Your task to perform on an android device: Search for bose soundlink mini on ebay.com, select the first entry, add it to the cart, then select checkout. Image 0: 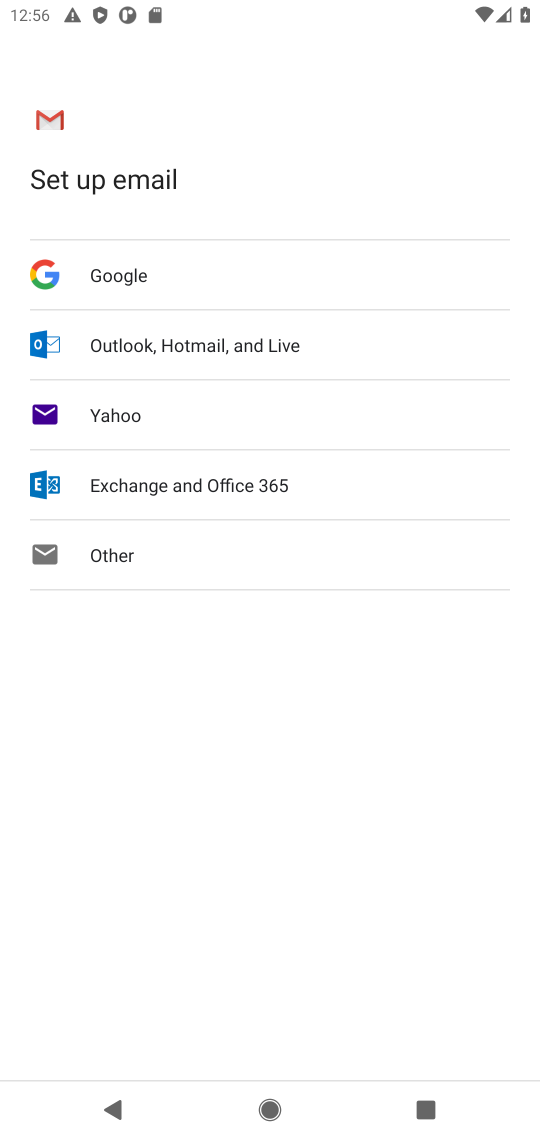
Step 0: press home button
Your task to perform on an android device: Search for bose soundlink mini on ebay.com, select the first entry, add it to the cart, then select checkout. Image 1: 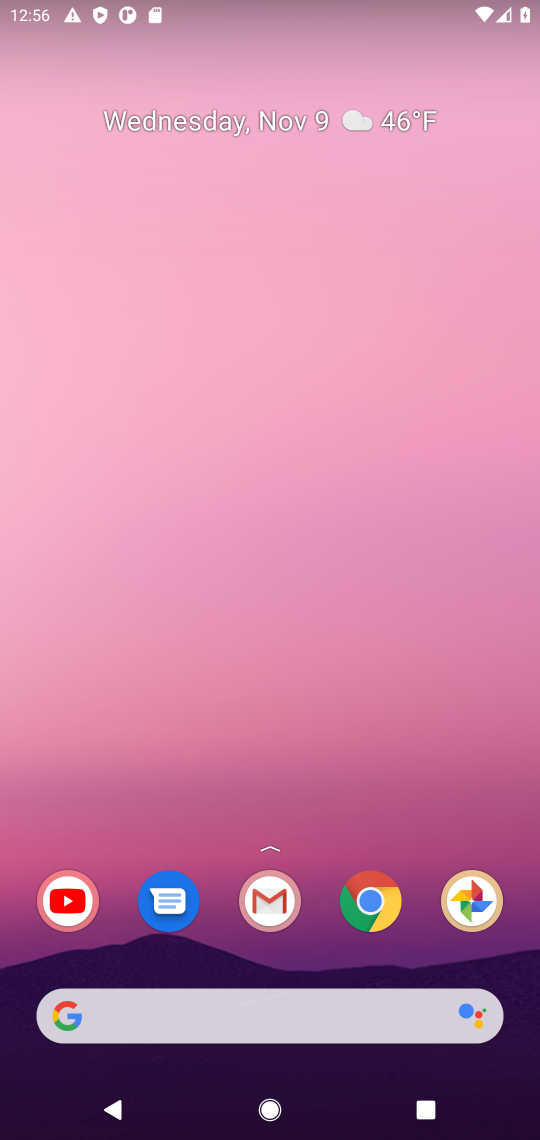
Step 1: click (345, 898)
Your task to perform on an android device: Search for bose soundlink mini on ebay.com, select the first entry, add it to the cart, then select checkout. Image 2: 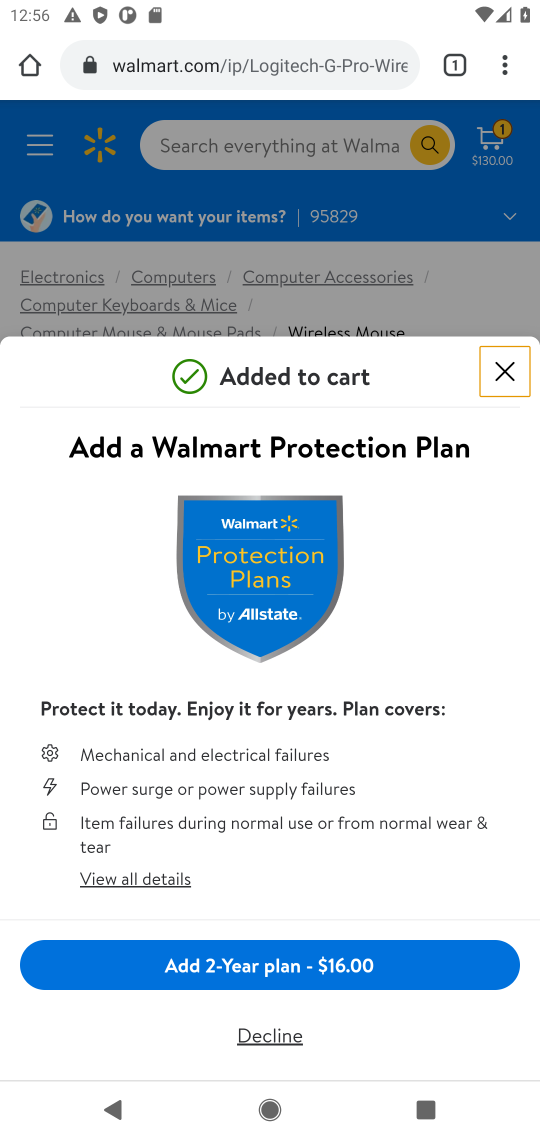
Step 2: click (515, 377)
Your task to perform on an android device: Search for bose soundlink mini on ebay.com, select the first entry, add it to the cart, then select checkout. Image 3: 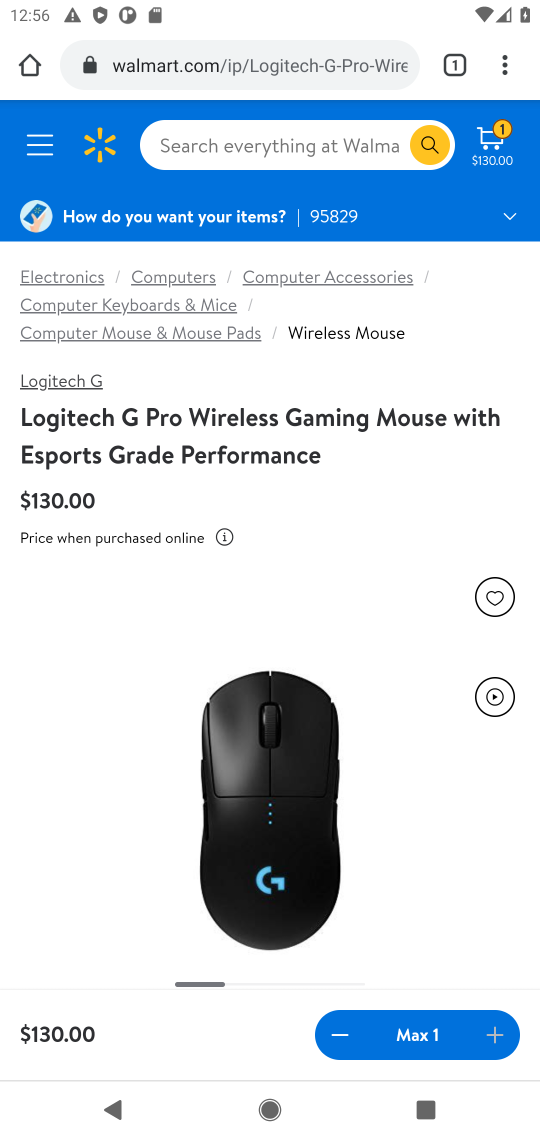
Step 3: click (271, 69)
Your task to perform on an android device: Search for bose soundlink mini on ebay.com, select the first entry, add it to the cart, then select checkout. Image 4: 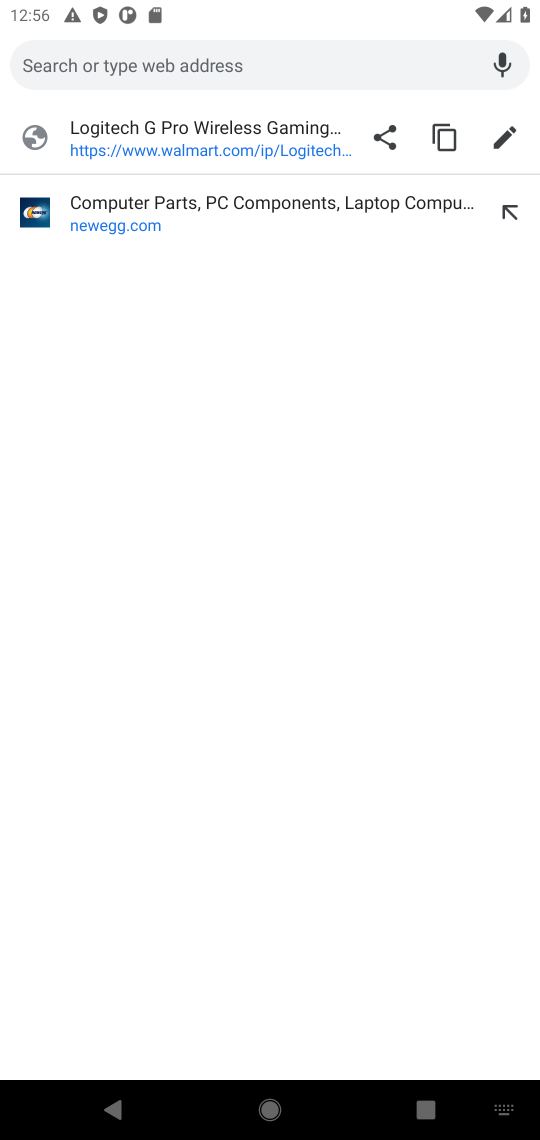
Step 4: type "ebay.com"
Your task to perform on an android device: Search for bose soundlink mini on ebay.com, select the first entry, add it to the cart, then select checkout. Image 5: 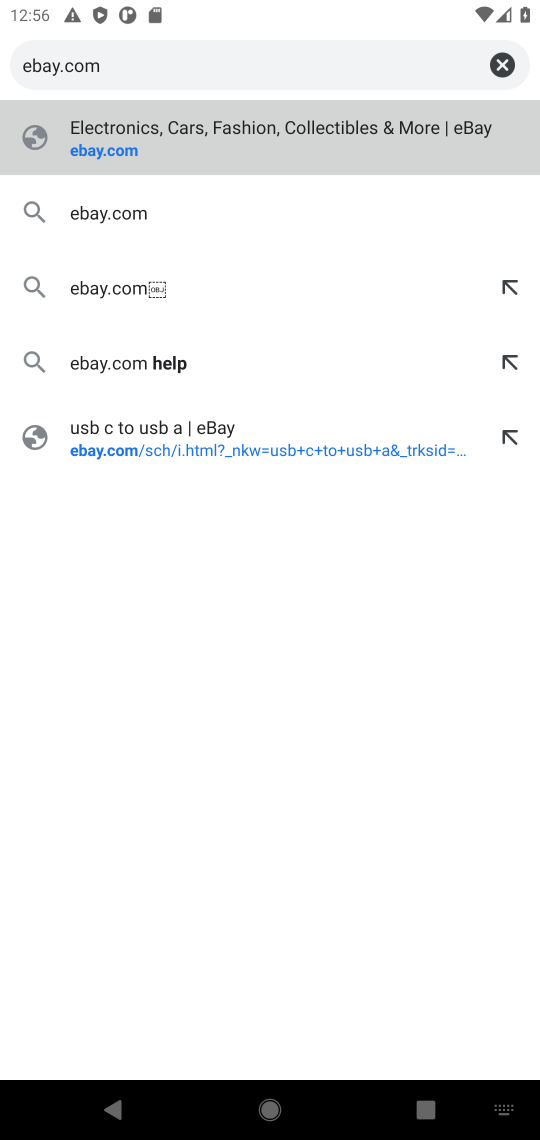
Step 5: press enter
Your task to perform on an android device: Search for bose soundlink mini on ebay.com, select the first entry, add it to the cart, then select checkout. Image 6: 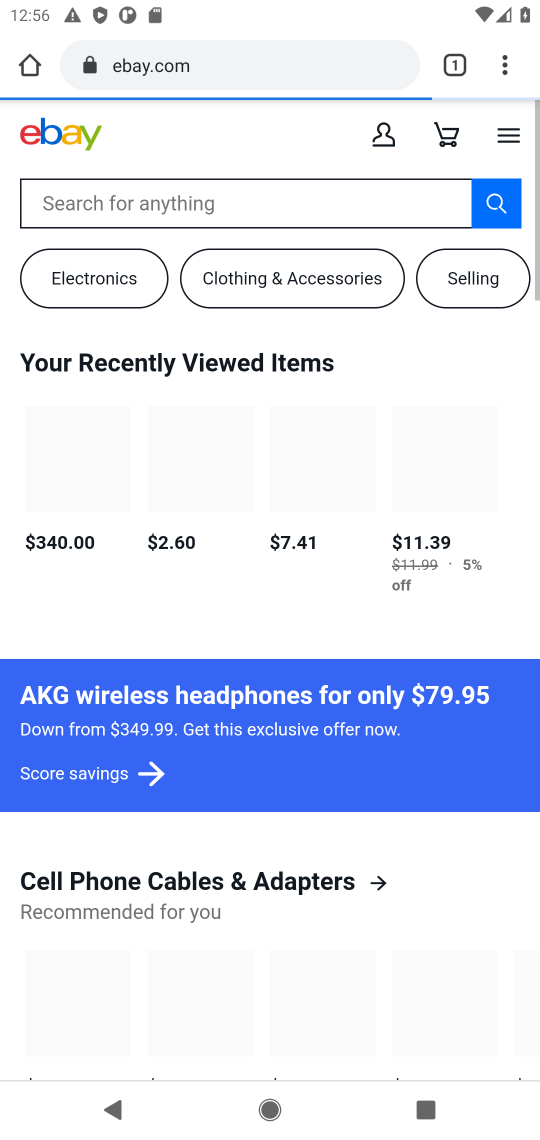
Step 6: click (362, 128)
Your task to perform on an android device: Search for bose soundlink mini on ebay.com, select the first entry, add it to the cart, then select checkout. Image 7: 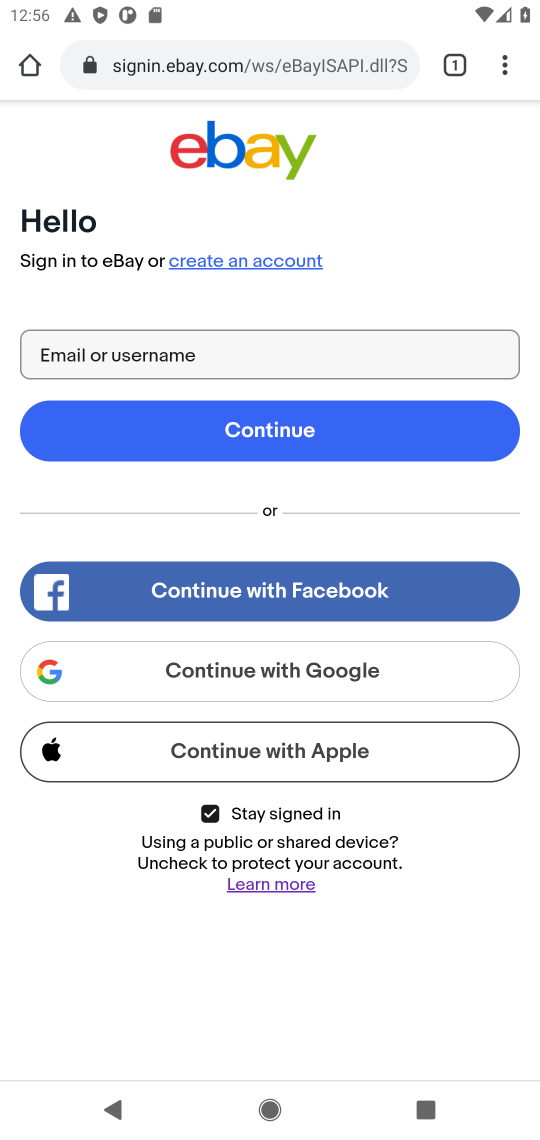
Step 7: press back button
Your task to perform on an android device: Search for bose soundlink mini on ebay.com, select the first entry, add it to the cart, then select checkout. Image 8: 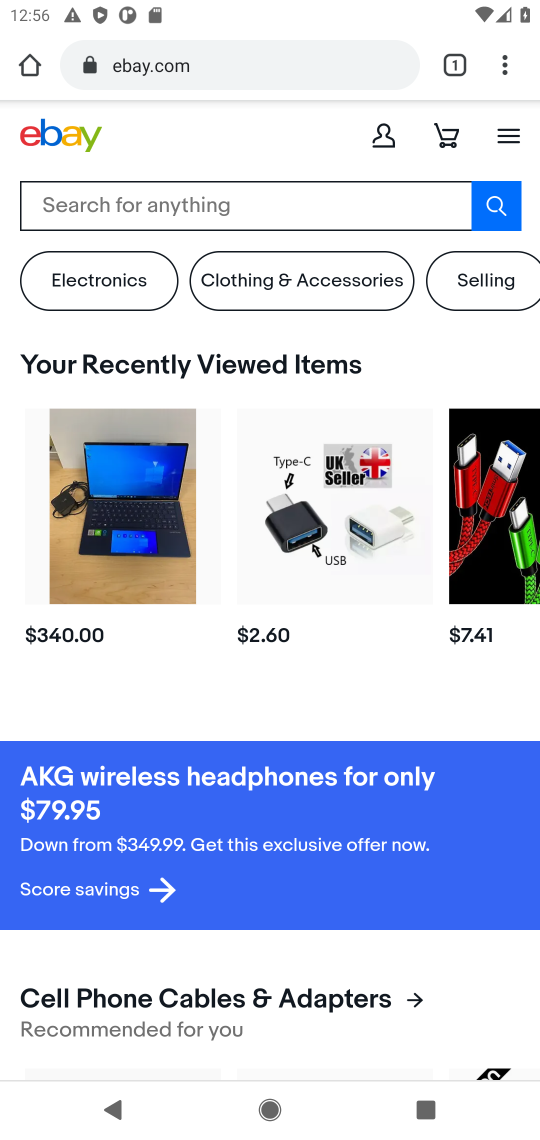
Step 8: click (314, 211)
Your task to perform on an android device: Search for bose soundlink mini on ebay.com, select the first entry, add it to the cart, then select checkout. Image 9: 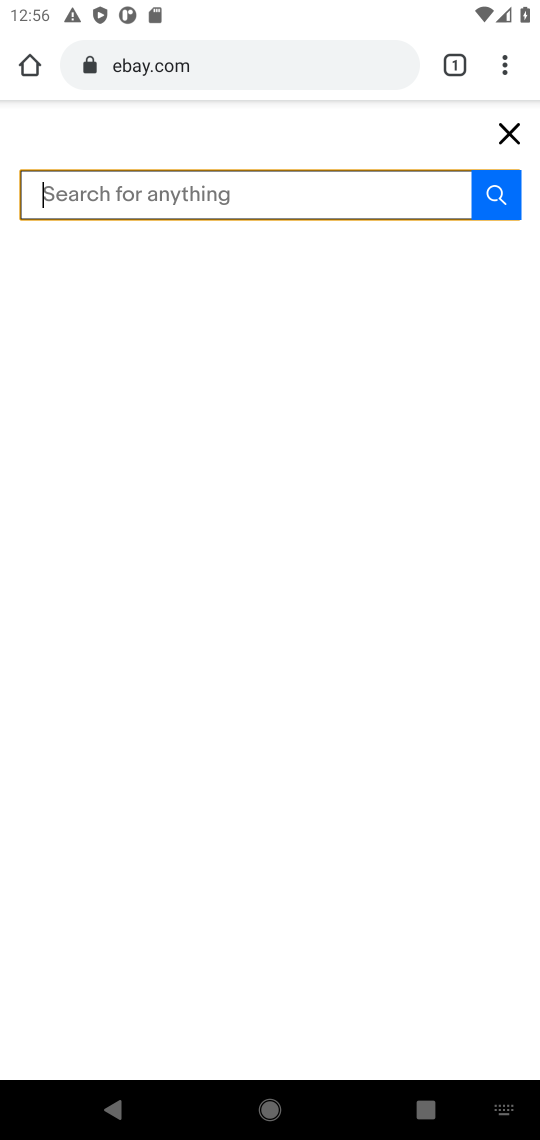
Step 9: type "bose soundlink mini"
Your task to perform on an android device: Search for bose soundlink mini on ebay.com, select the first entry, add it to the cart, then select checkout. Image 10: 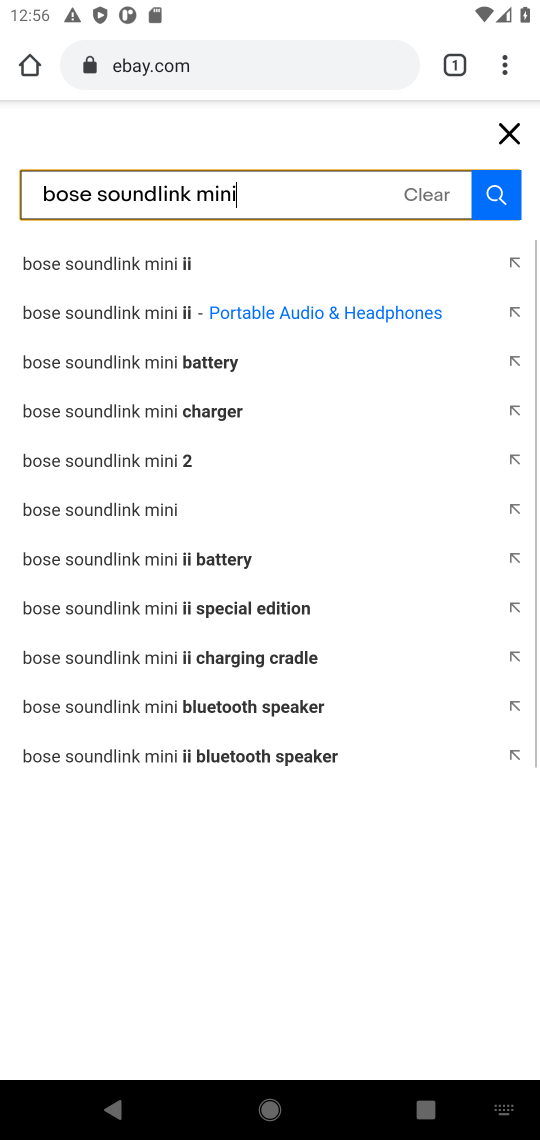
Step 10: press enter
Your task to perform on an android device: Search for bose soundlink mini on ebay.com, select the first entry, add it to the cart, then select checkout. Image 11: 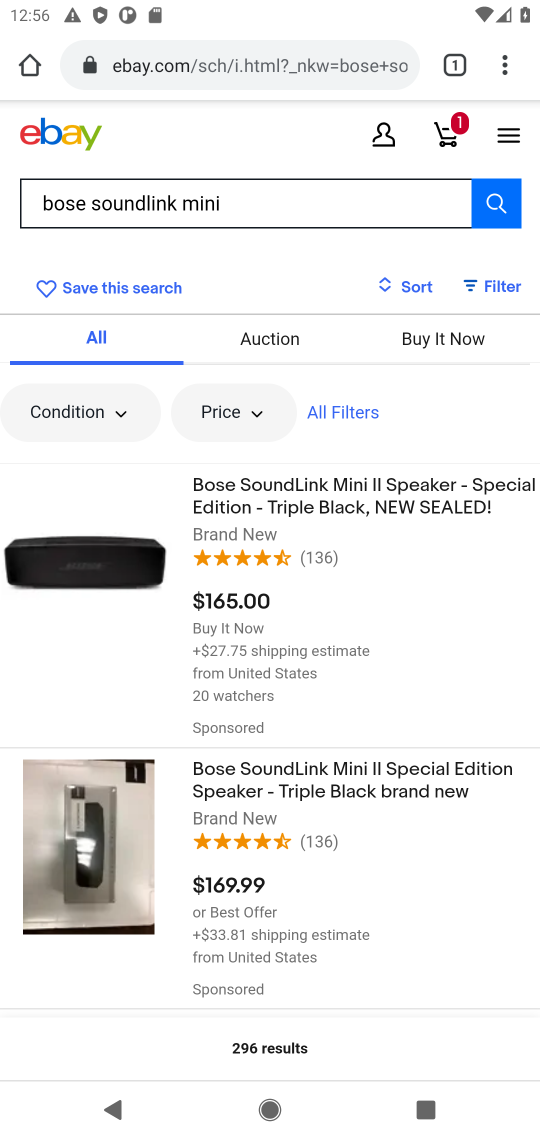
Step 11: click (346, 480)
Your task to perform on an android device: Search for bose soundlink mini on ebay.com, select the first entry, add it to the cart, then select checkout. Image 12: 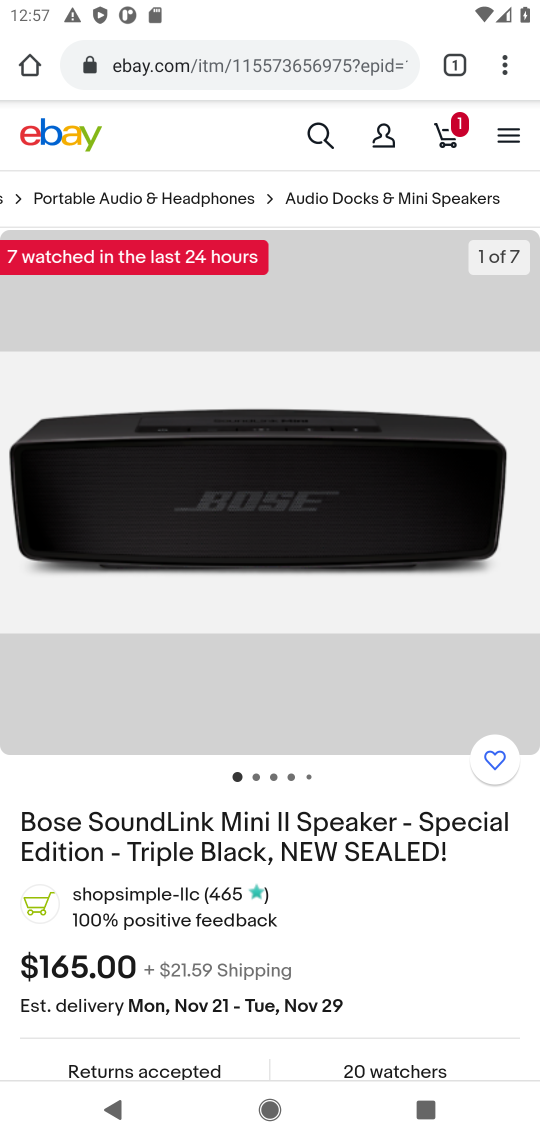
Step 12: drag from (413, 735) to (451, 253)
Your task to perform on an android device: Search for bose soundlink mini on ebay.com, select the first entry, add it to the cart, then select checkout. Image 13: 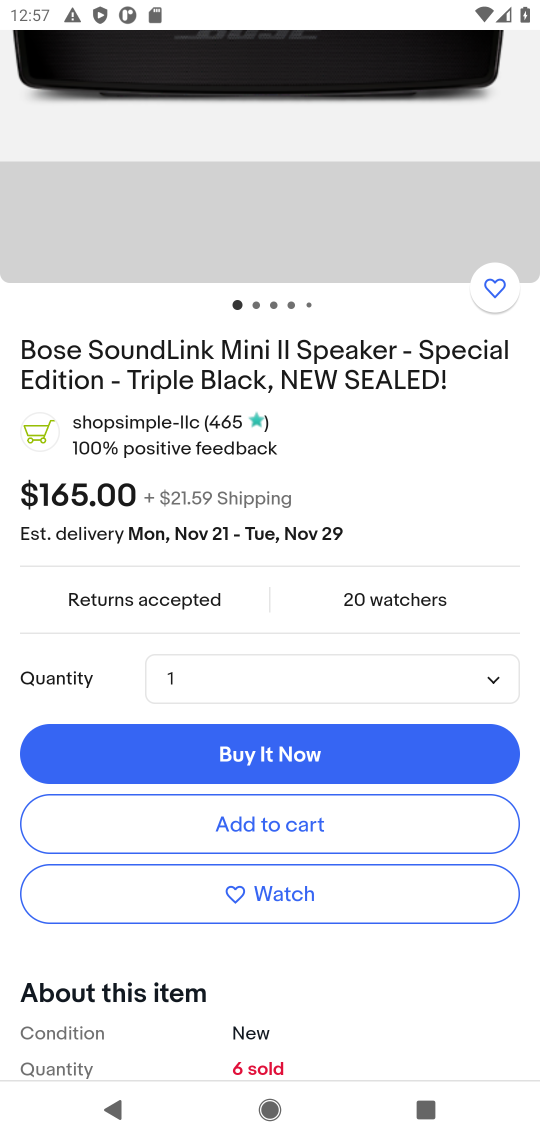
Step 13: click (278, 826)
Your task to perform on an android device: Search for bose soundlink mini on ebay.com, select the first entry, add it to the cart, then select checkout. Image 14: 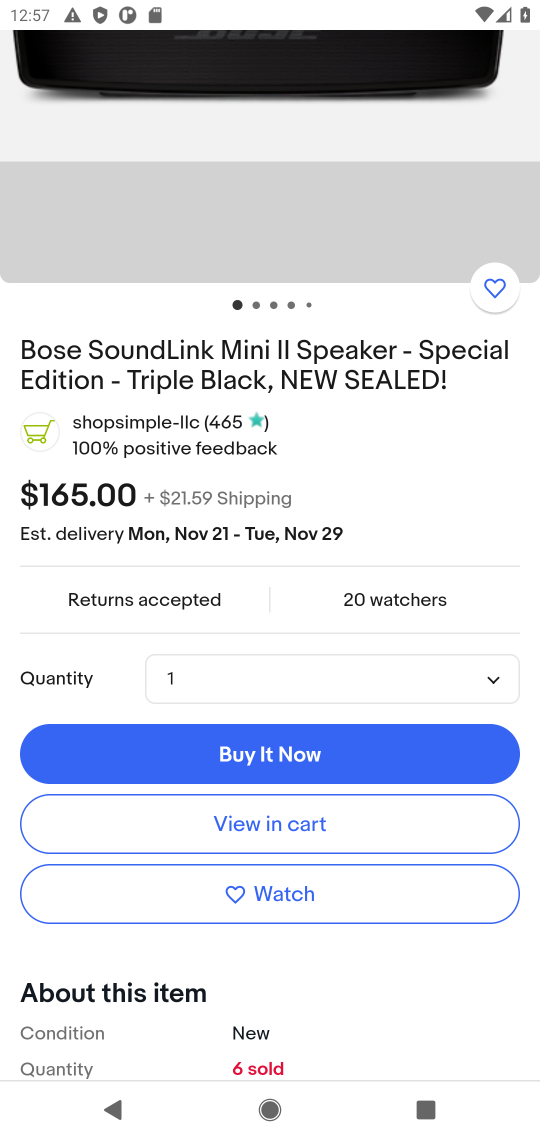
Step 14: click (282, 830)
Your task to perform on an android device: Search for bose soundlink mini on ebay.com, select the first entry, add it to the cart, then select checkout. Image 15: 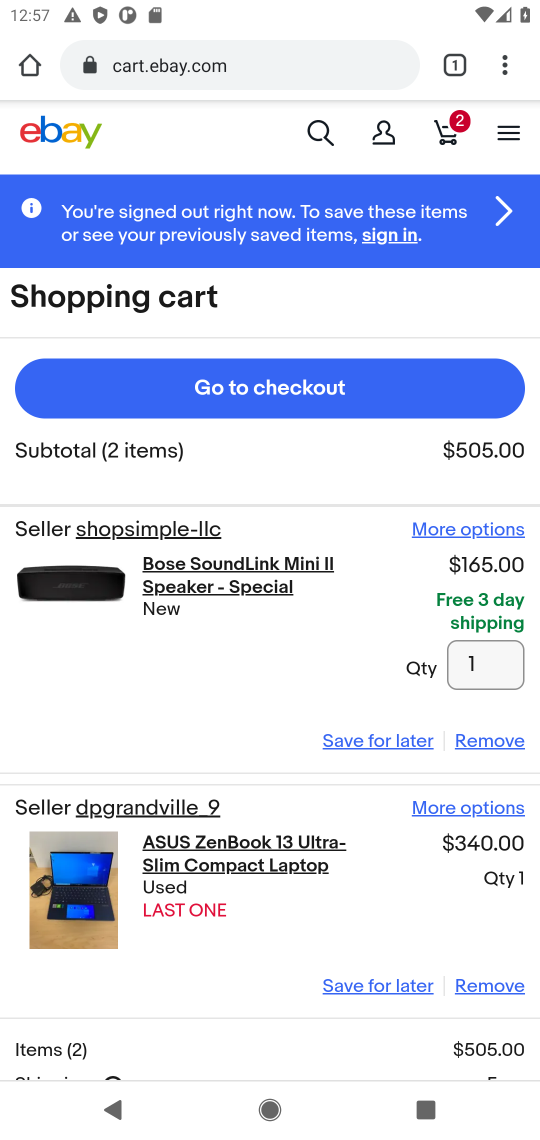
Step 15: click (242, 372)
Your task to perform on an android device: Search for bose soundlink mini on ebay.com, select the first entry, add it to the cart, then select checkout. Image 16: 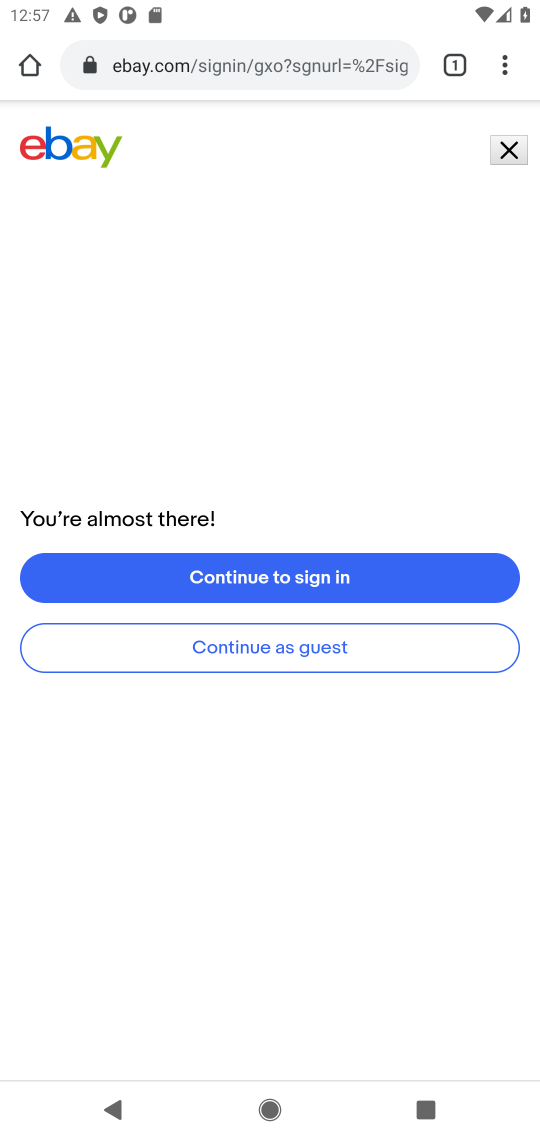
Step 16: task complete